Your task to perform on an android device: turn pop-ups on in chrome Image 0: 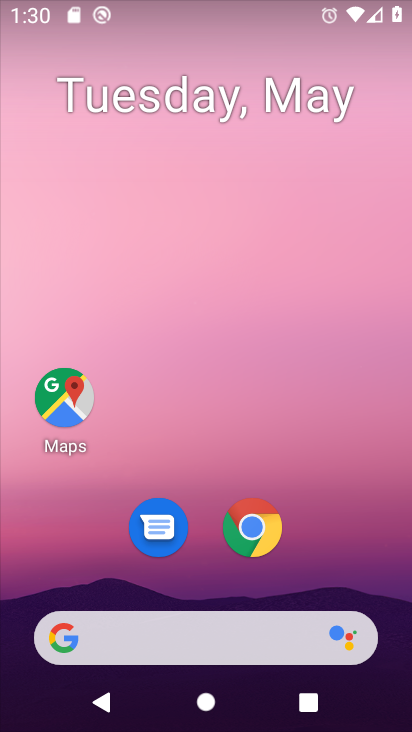
Step 0: drag from (254, 556) to (258, 56)
Your task to perform on an android device: turn pop-ups on in chrome Image 1: 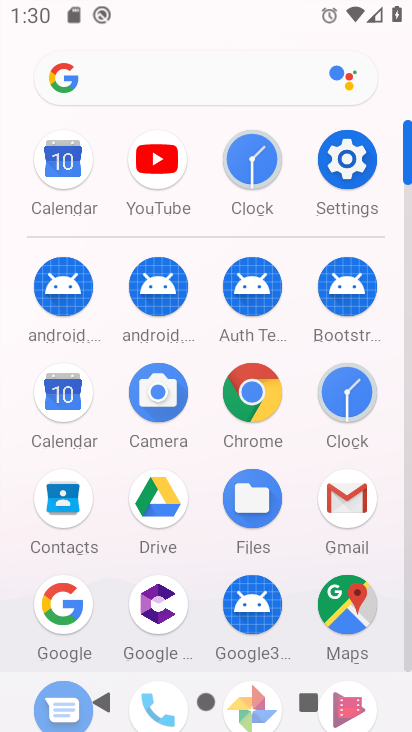
Step 1: click (350, 158)
Your task to perform on an android device: turn pop-ups on in chrome Image 2: 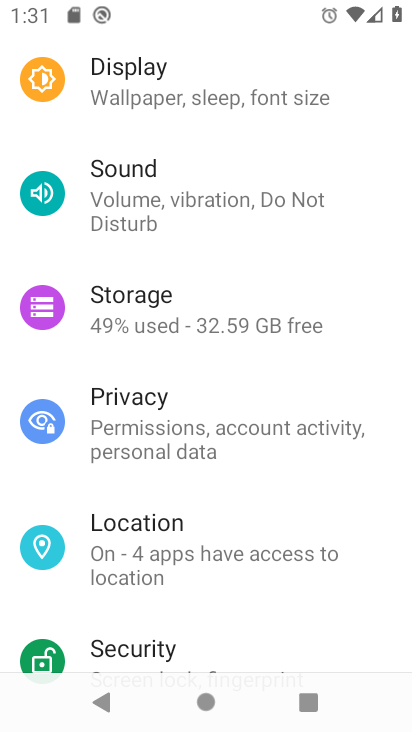
Step 2: drag from (275, 181) to (301, 706)
Your task to perform on an android device: turn pop-ups on in chrome Image 3: 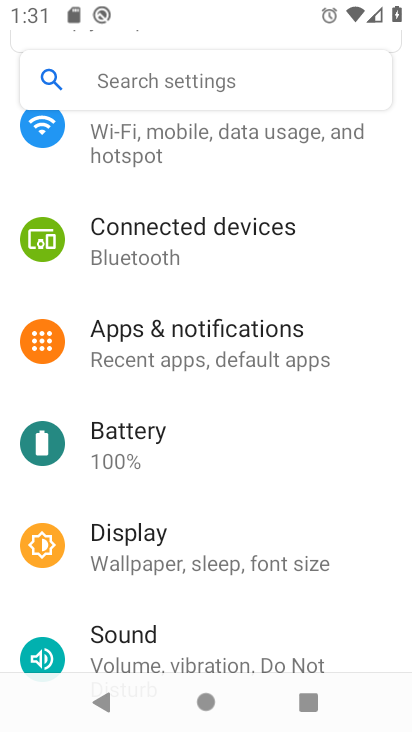
Step 3: press home button
Your task to perform on an android device: turn pop-ups on in chrome Image 4: 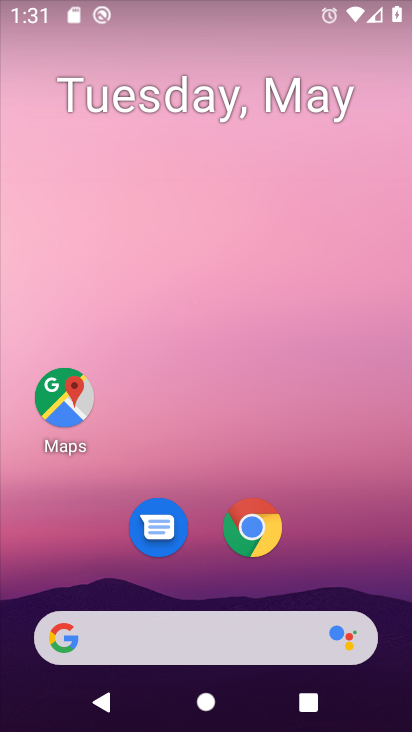
Step 4: drag from (263, 704) to (213, 151)
Your task to perform on an android device: turn pop-ups on in chrome Image 5: 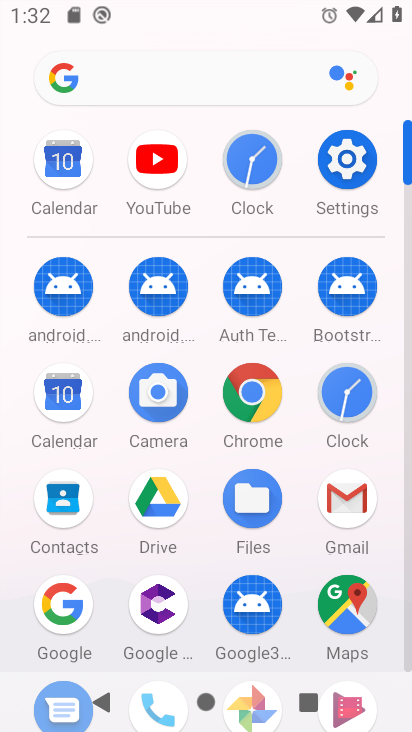
Step 5: click (244, 380)
Your task to perform on an android device: turn pop-ups on in chrome Image 6: 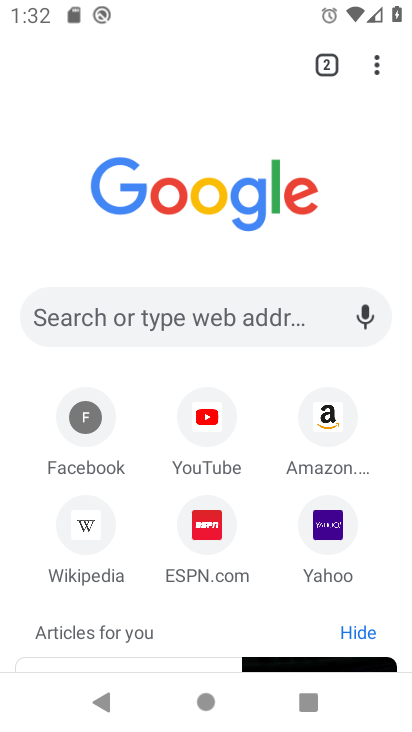
Step 6: drag from (377, 67) to (243, 552)
Your task to perform on an android device: turn pop-ups on in chrome Image 7: 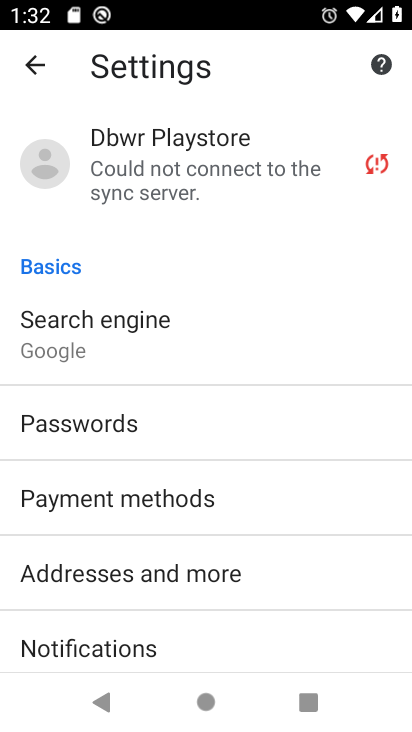
Step 7: drag from (282, 606) to (313, 243)
Your task to perform on an android device: turn pop-ups on in chrome Image 8: 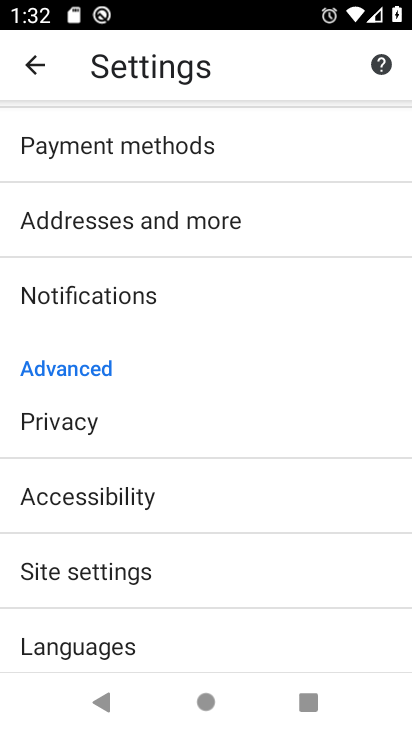
Step 8: click (215, 564)
Your task to perform on an android device: turn pop-ups on in chrome Image 9: 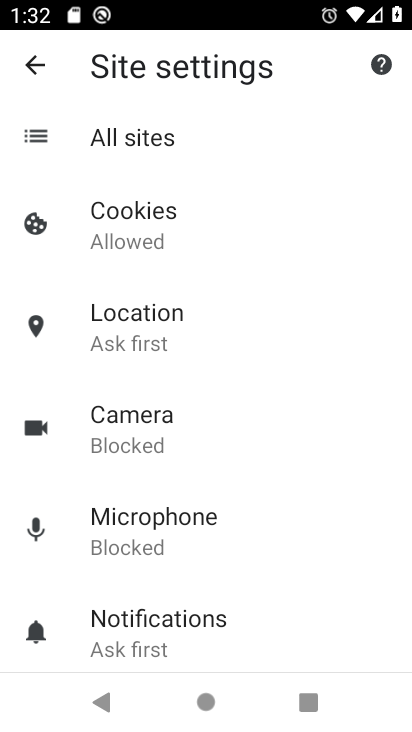
Step 9: drag from (285, 612) to (302, 185)
Your task to perform on an android device: turn pop-ups on in chrome Image 10: 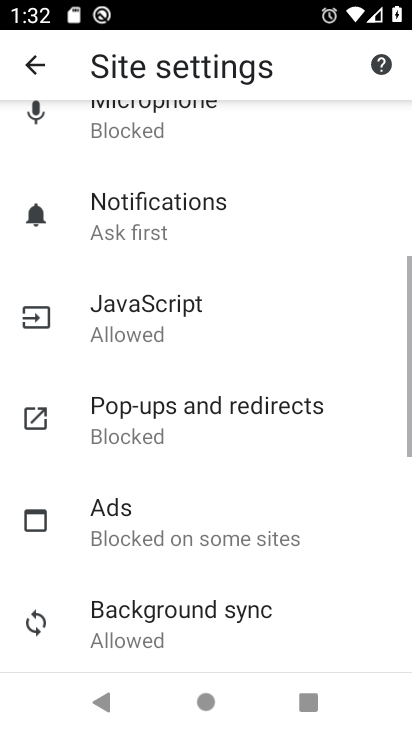
Step 10: click (216, 428)
Your task to perform on an android device: turn pop-ups on in chrome Image 11: 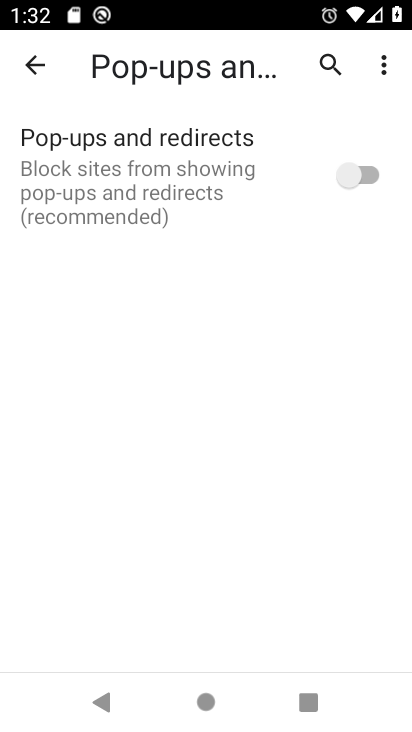
Step 11: click (372, 168)
Your task to perform on an android device: turn pop-ups on in chrome Image 12: 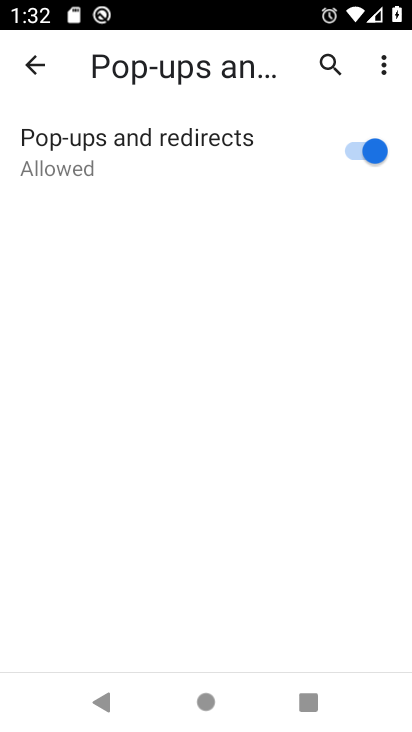
Step 12: task complete